Your task to perform on an android device: toggle improve location accuracy Image 0: 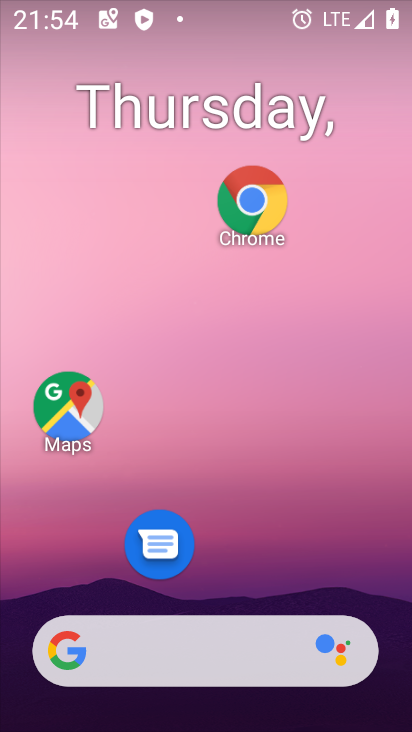
Step 0: drag from (192, 592) to (224, 135)
Your task to perform on an android device: toggle improve location accuracy Image 1: 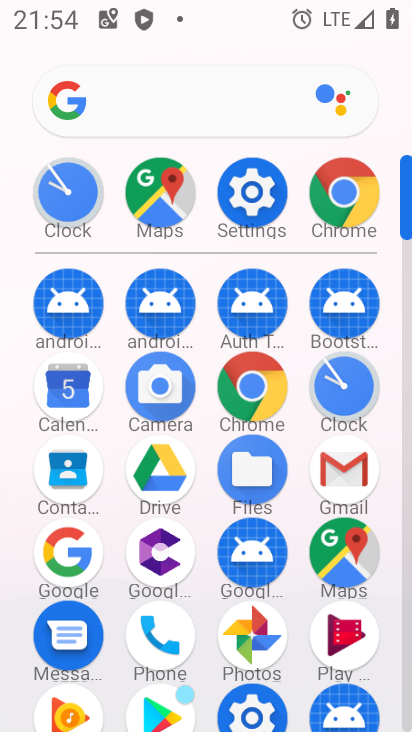
Step 1: click (249, 194)
Your task to perform on an android device: toggle improve location accuracy Image 2: 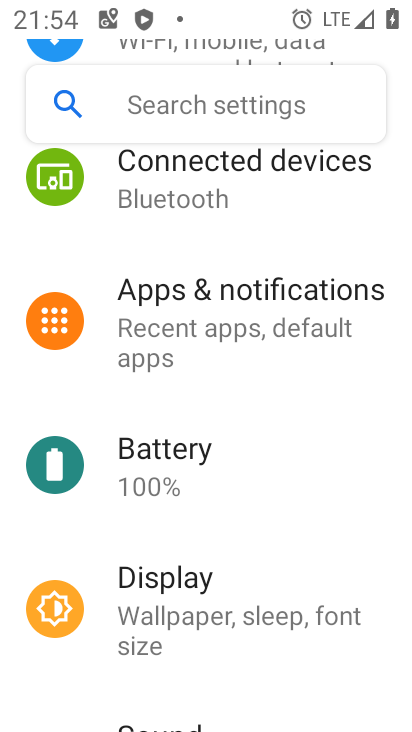
Step 2: drag from (121, 582) to (151, 28)
Your task to perform on an android device: toggle improve location accuracy Image 3: 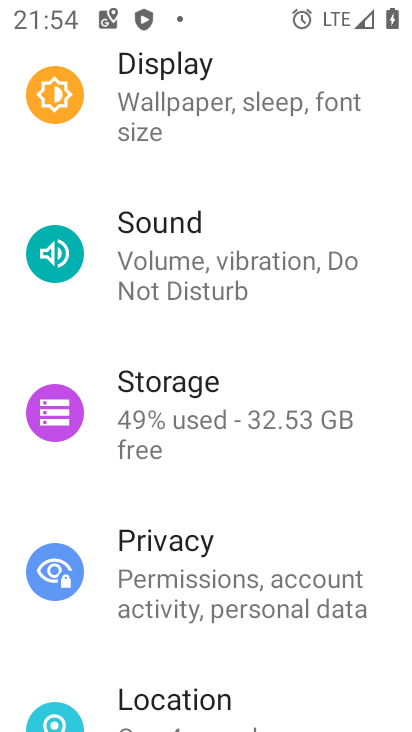
Step 3: click (86, 684)
Your task to perform on an android device: toggle improve location accuracy Image 4: 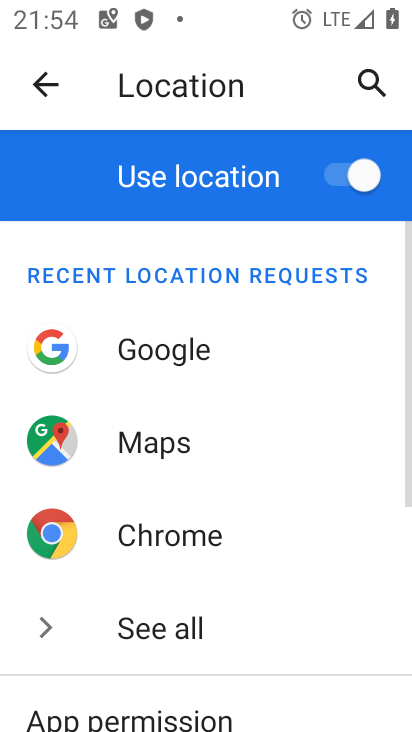
Step 4: drag from (86, 684) to (162, 89)
Your task to perform on an android device: toggle improve location accuracy Image 5: 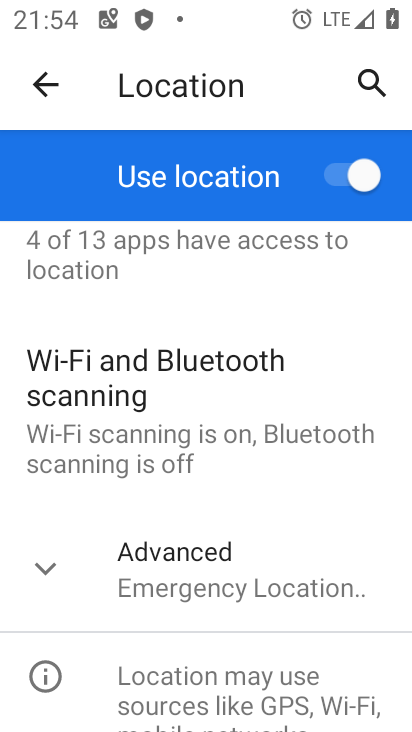
Step 5: click (169, 567)
Your task to perform on an android device: toggle improve location accuracy Image 6: 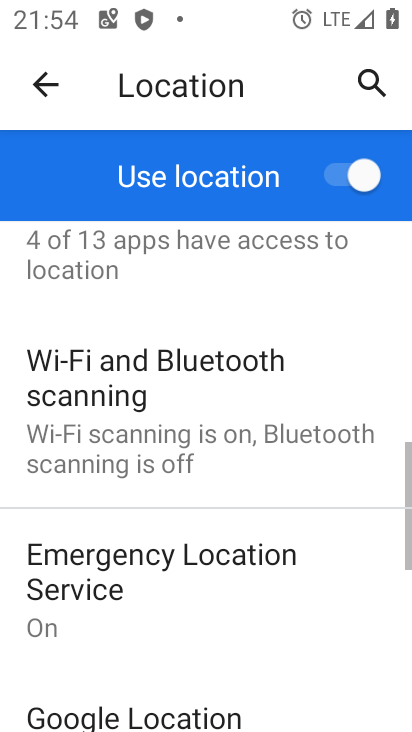
Step 6: drag from (169, 567) to (217, 158)
Your task to perform on an android device: toggle improve location accuracy Image 7: 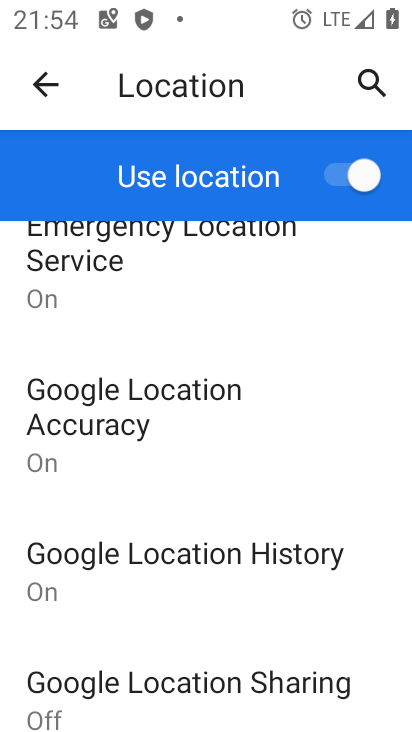
Step 7: click (157, 385)
Your task to perform on an android device: toggle improve location accuracy Image 8: 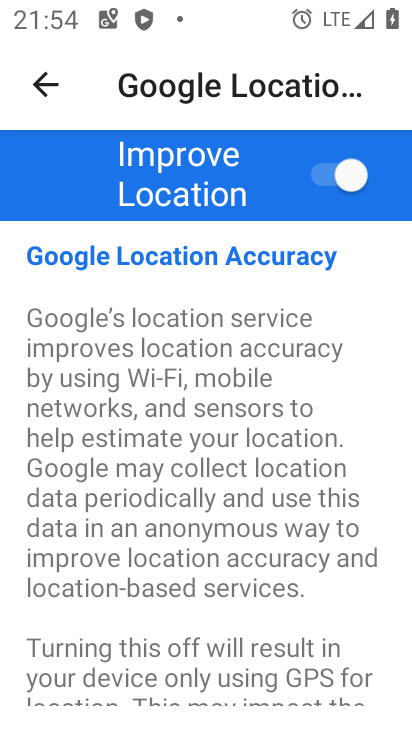
Step 8: task complete